Your task to perform on an android device: show emergency info Image 0: 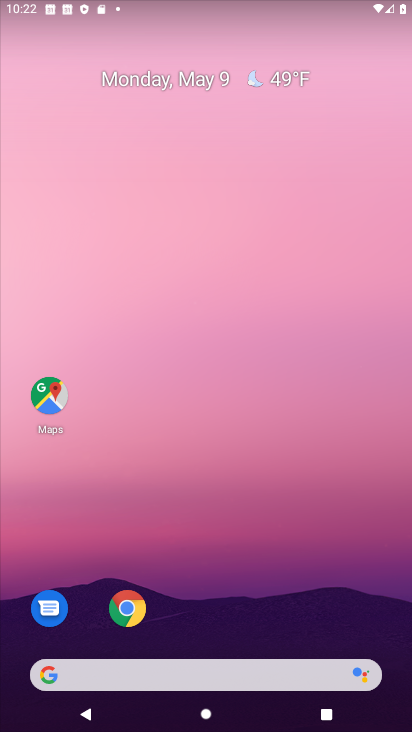
Step 0: drag from (281, 597) to (338, 17)
Your task to perform on an android device: show emergency info Image 1: 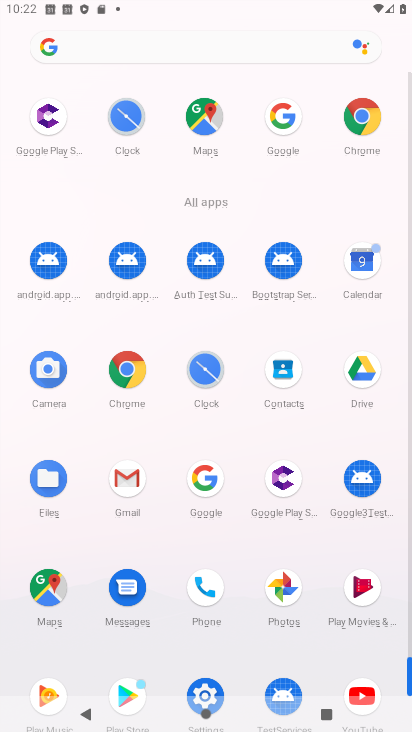
Step 1: click (205, 682)
Your task to perform on an android device: show emergency info Image 2: 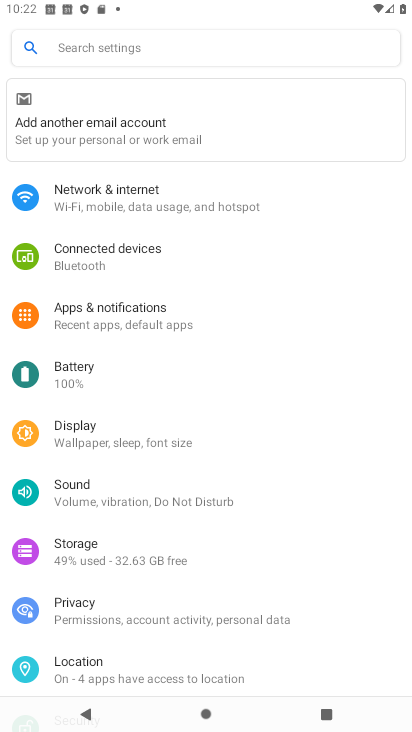
Step 2: drag from (185, 656) to (217, 109)
Your task to perform on an android device: show emergency info Image 3: 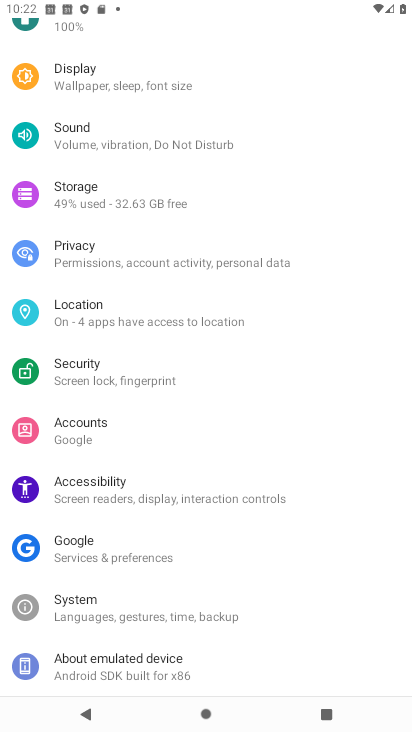
Step 3: click (192, 660)
Your task to perform on an android device: show emergency info Image 4: 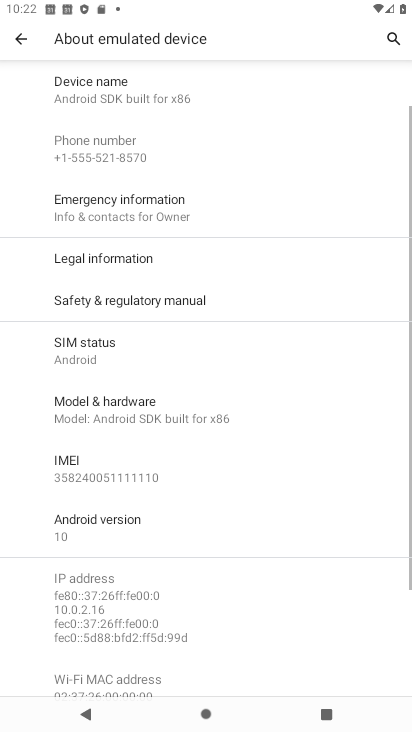
Step 4: click (153, 224)
Your task to perform on an android device: show emergency info Image 5: 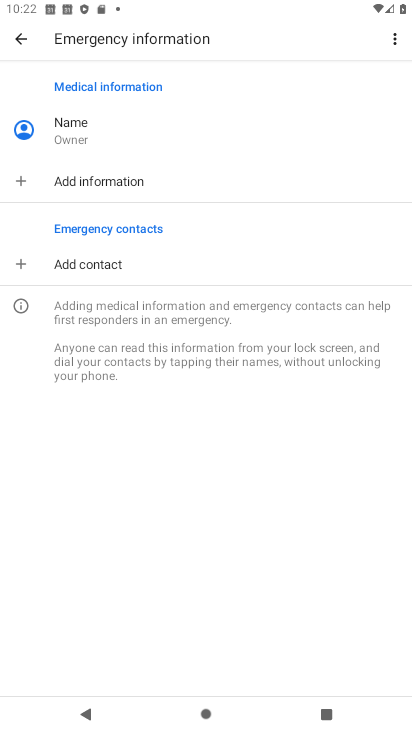
Step 5: task complete